Your task to perform on an android device: What's the weather going to be this weekend? Image 0: 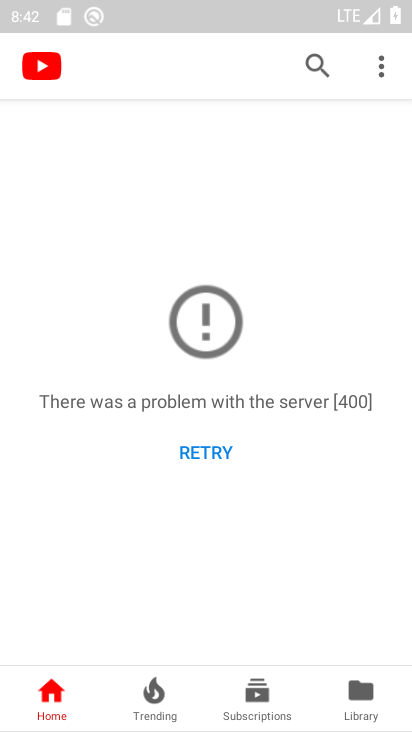
Step 0: press home button
Your task to perform on an android device: What's the weather going to be this weekend? Image 1: 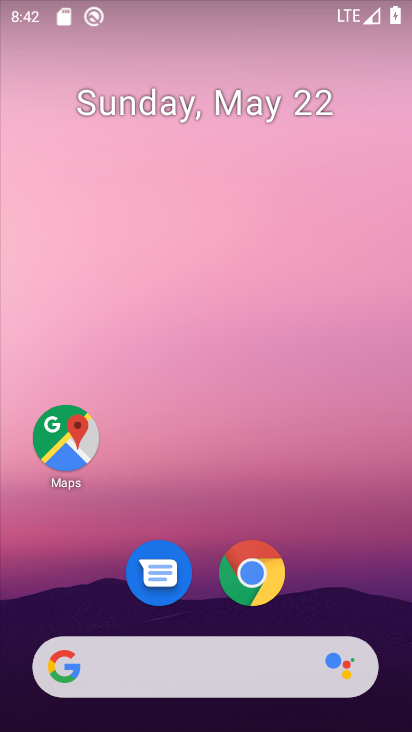
Step 1: drag from (220, 486) to (239, 113)
Your task to perform on an android device: What's the weather going to be this weekend? Image 2: 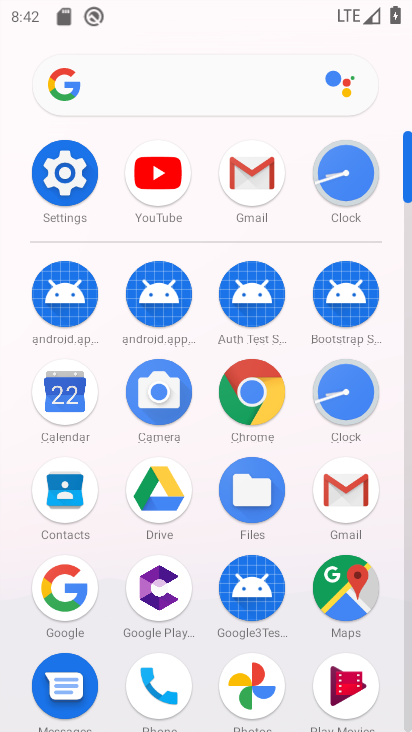
Step 2: click (141, 91)
Your task to perform on an android device: What's the weather going to be this weekend? Image 3: 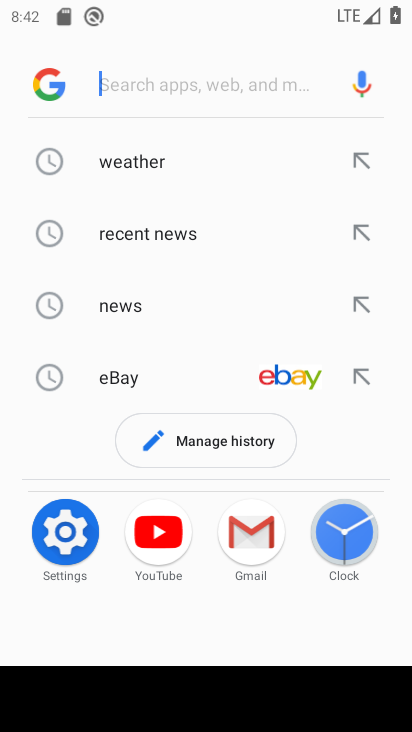
Step 3: type "What's the weather going to be this weekend?"
Your task to perform on an android device: What's the weather going to be this weekend? Image 4: 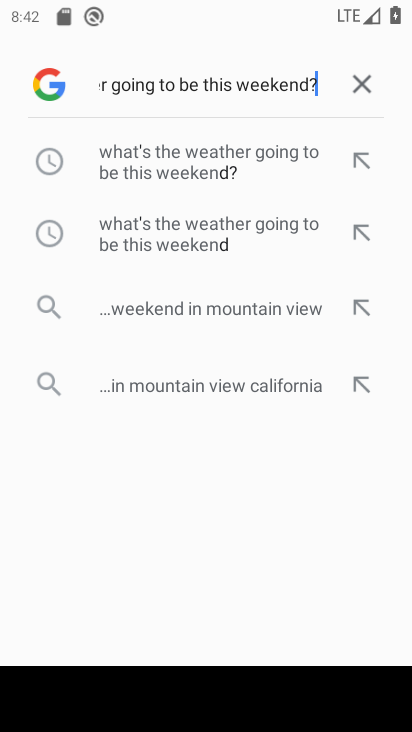
Step 4: type ""
Your task to perform on an android device: What's the weather going to be this weekend? Image 5: 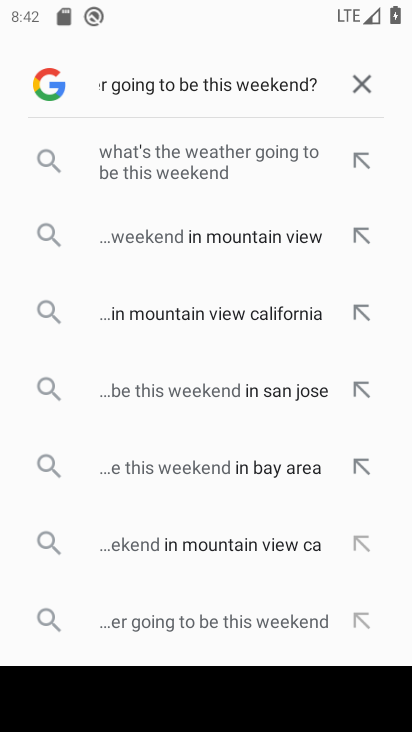
Step 5: click (211, 163)
Your task to perform on an android device: What's the weather going to be this weekend? Image 6: 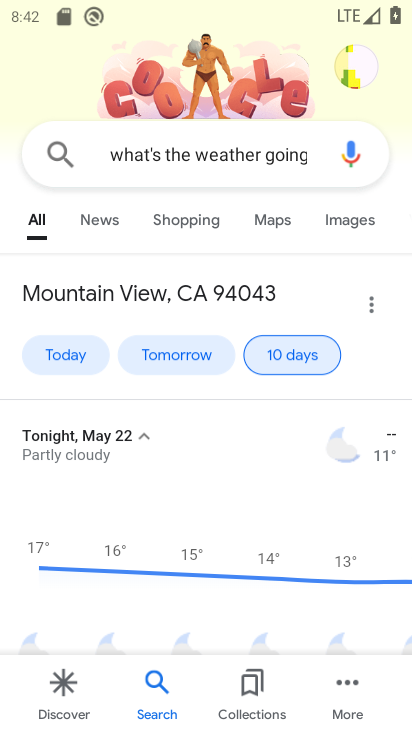
Step 6: task complete